Your task to perform on an android device: Open calendar and show me the fourth week of next month Image 0: 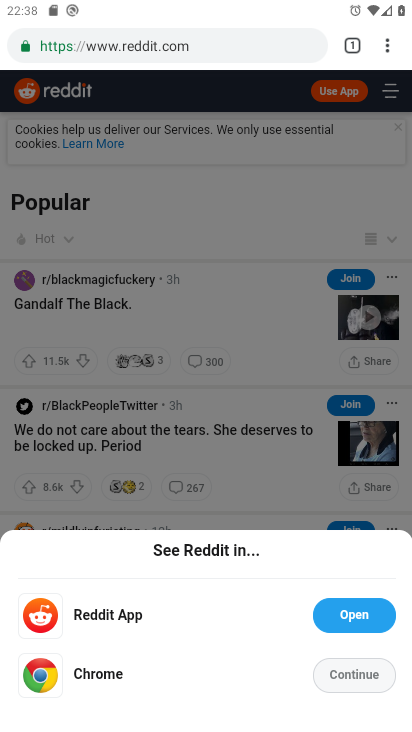
Step 0: click (399, 570)
Your task to perform on an android device: Open calendar and show me the fourth week of next month Image 1: 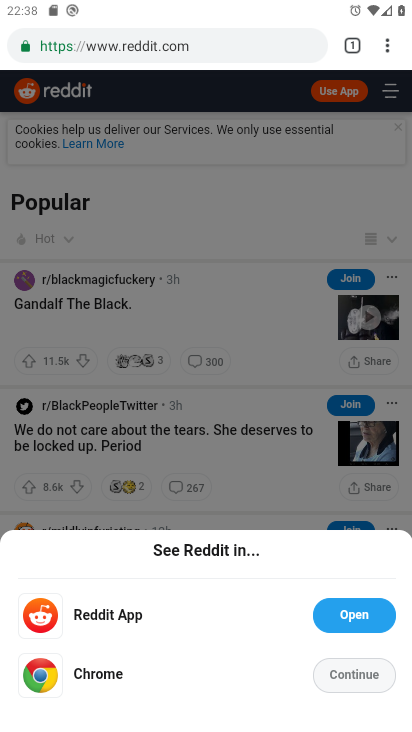
Step 1: press home button
Your task to perform on an android device: Open calendar and show me the fourth week of next month Image 2: 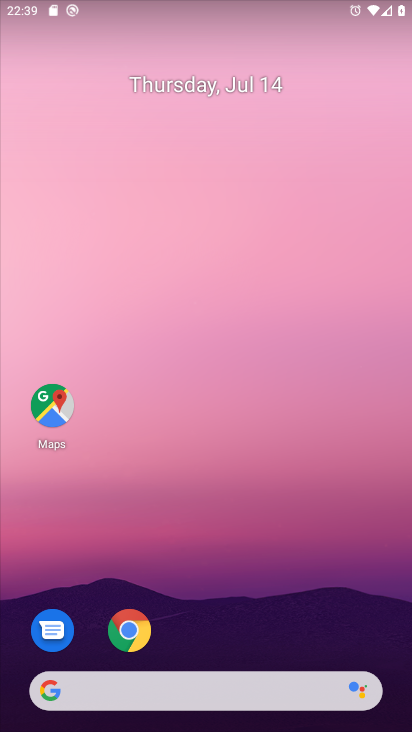
Step 2: drag from (194, 579) to (138, 9)
Your task to perform on an android device: Open calendar and show me the fourth week of next month Image 3: 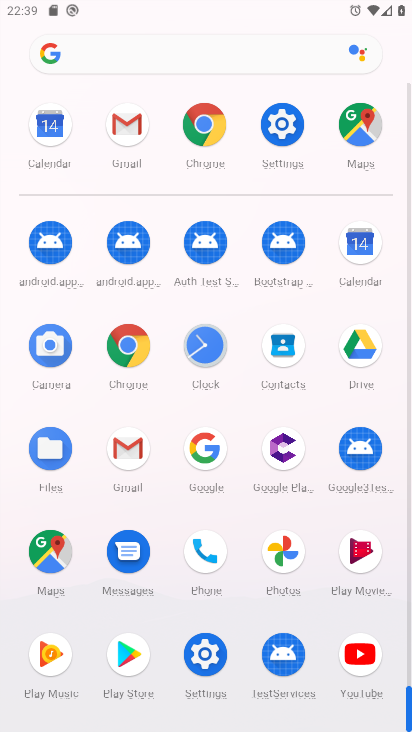
Step 3: click (274, 347)
Your task to perform on an android device: Open calendar and show me the fourth week of next month Image 4: 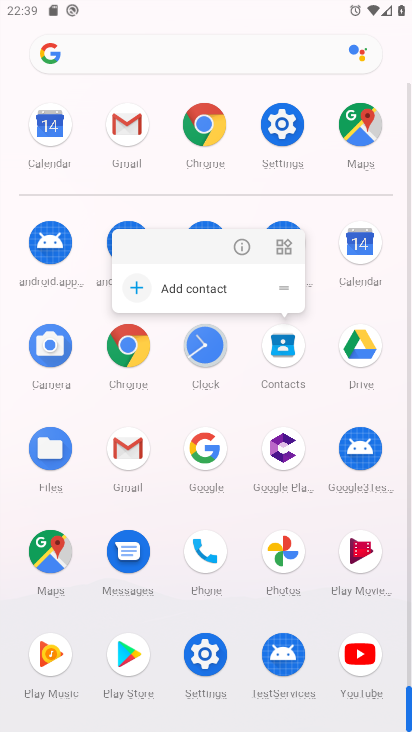
Step 4: click (240, 244)
Your task to perform on an android device: Open calendar and show me the fourth week of next month Image 5: 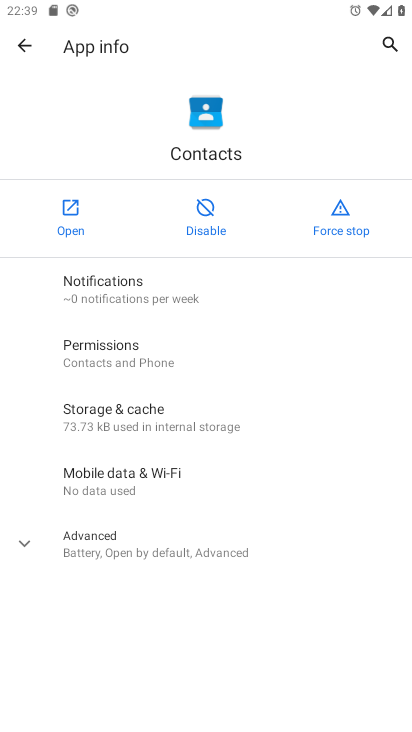
Step 5: press home button
Your task to perform on an android device: Open calendar and show me the fourth week of next month Image 6: 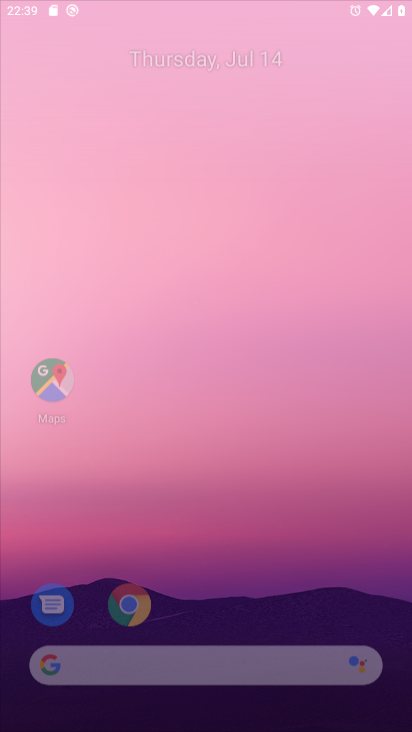
Step 6: drag from (242, 542) to (280, 243)
Your task to perform on an android device: Open calendar and show me the fourth week of next month Image 7: 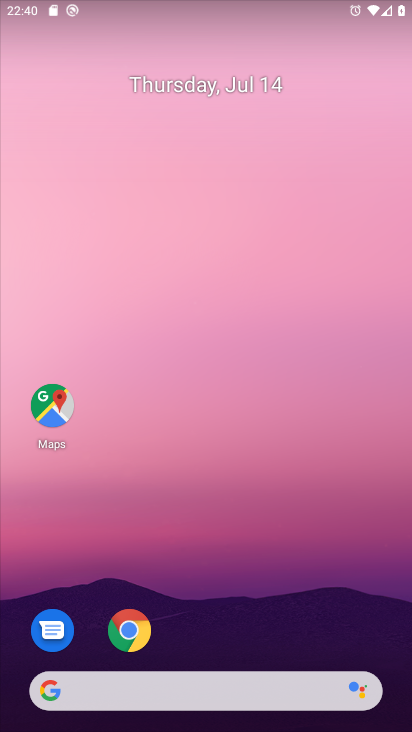
Step 7: drag from (212, 537) to (264, 347)
Your task to perform on an android device: Open calendar and show me the fourth week of next month Image 8: 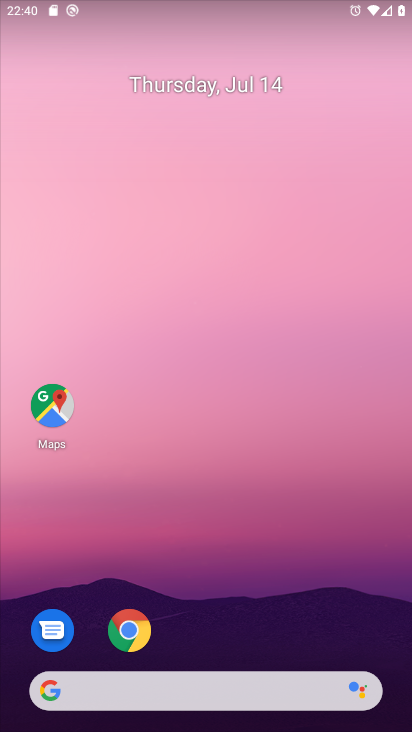
Step 8: drag from (185, 651) to (196, 66)
Your task to perform on an android device: Open calendar and show me the fourth week of next month Image 9: 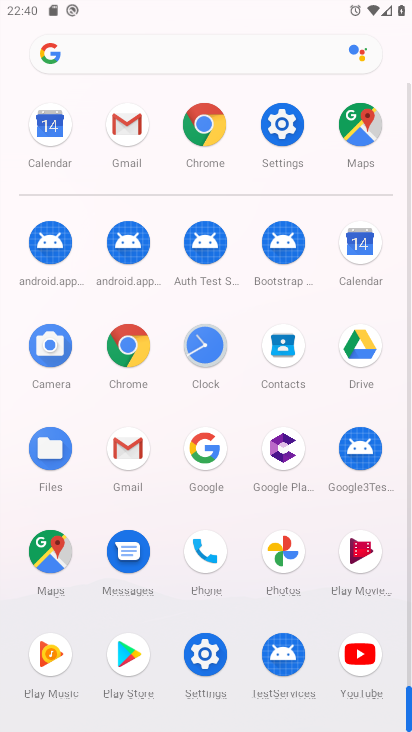
Step 9: click (350, 230)
Your task to perform on an android device: Open calendar and show me the fourth week of next month Image 10: 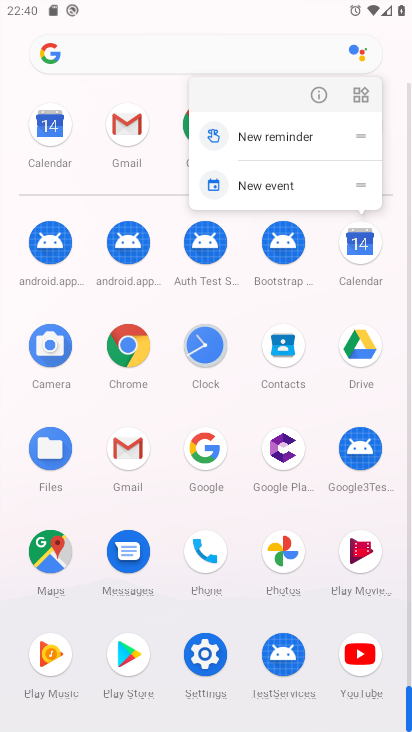
Step 10: click (319, 88)
Your task to perform on an android device: Open calendar and show me the fourth week of next month Image 11: 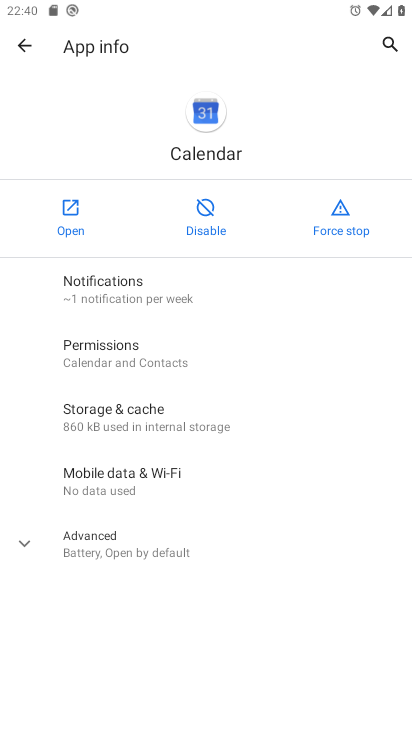
Step 11: click (70, 209)
Your task to perform on an android device: Open calendar and show me the fourth week of next month Image 12: 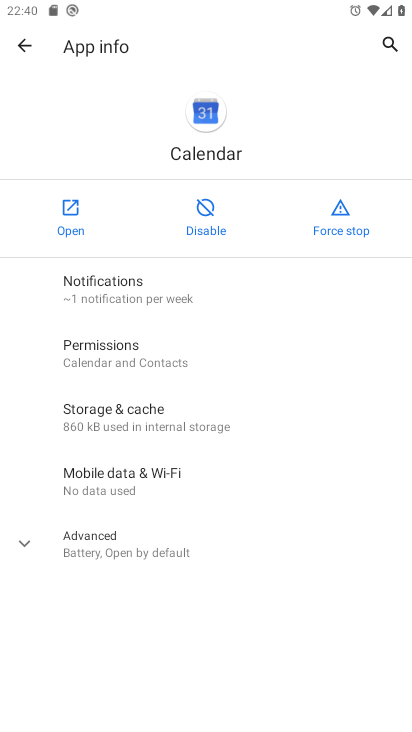
Step 12: click (70, 209)
Your task to perform on an android device: Open calendar and show me the fourth week of next month Image 13: 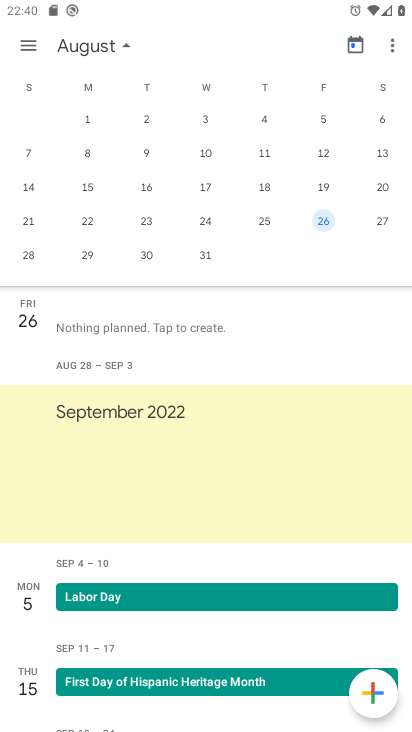
Step 13: click (208, 222)
Your task to perform on an android device: Open calendar and show me the fourth week of next month Image 14: 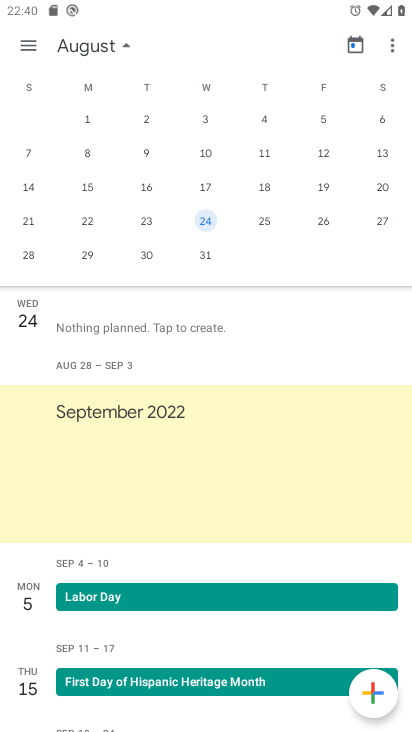
Step 14: task complete